Your task to perform on an android device: Do I have any events tomorrow? Image 0: 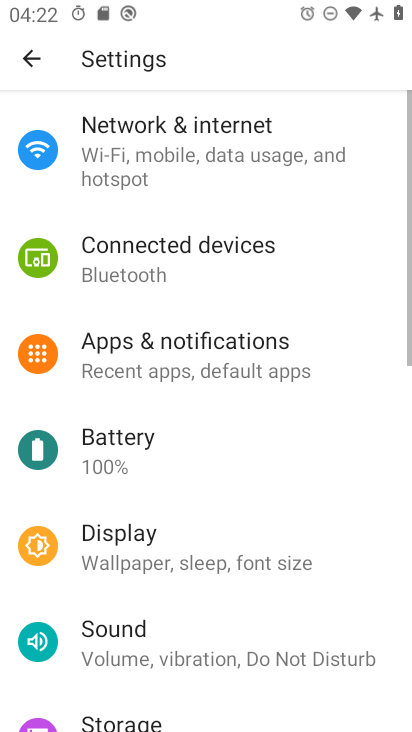
Step 0: press home button
Your task to perform on an android device: Do I have any events tomorrow? Image 1: 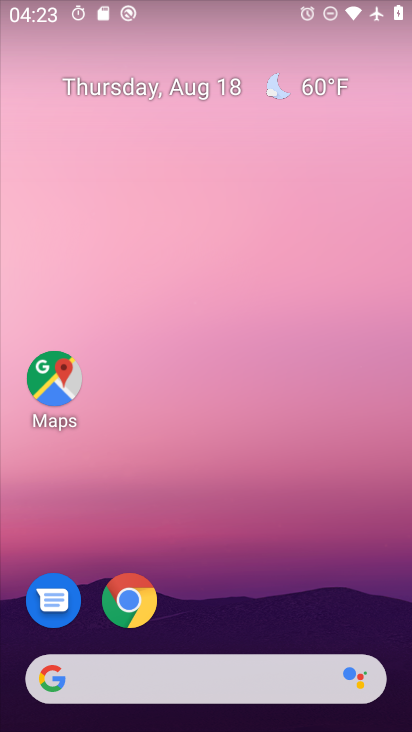
Step 1: drag from (258, 614) to (272, 86)
Your task to perform on an android device: Do I have any events tomorrow? Image 2: 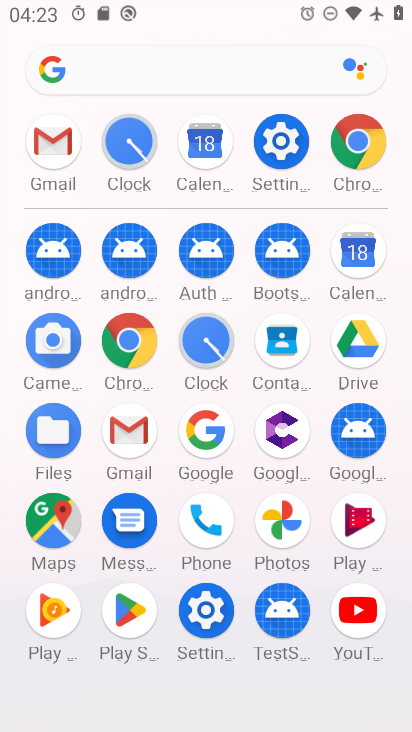
Step 2: click (199, 149)
Your task to perform on an android device: Do I have any events tomorrow? Image 3: 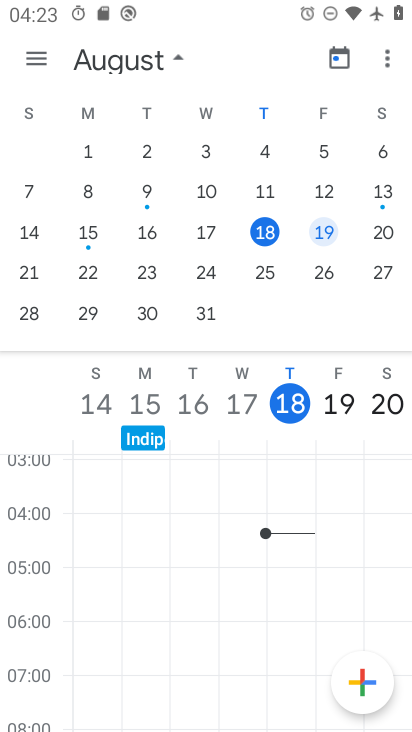
Step 3: click (321, 234)
Your task to perform on an android device: Do I have any events tomorrow? Image 4: 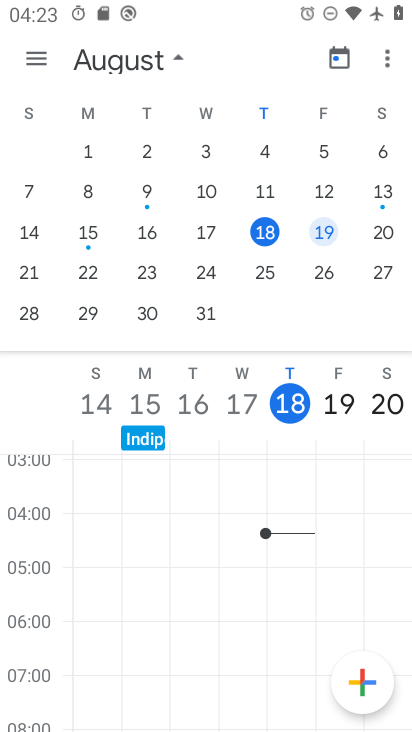
Step 4: click (323, 224)
Your task to perform on an android device: Do I have any events tomorrow? Image 5: 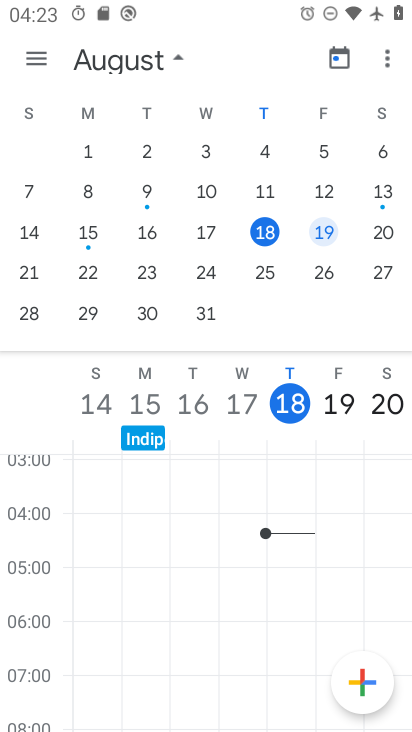
Step 5: task complete